Your task to perform on an android device: move a message to another label in the gmail app Image 0: 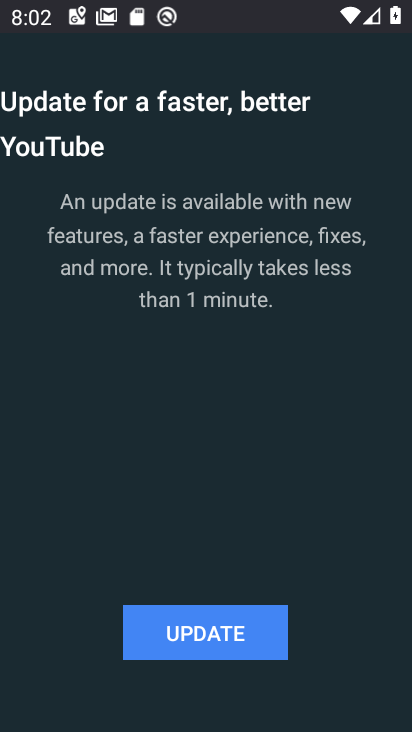
Step 0: press home button
Your task to perform on an android device: move a message to another label in the gmail app Image 1: 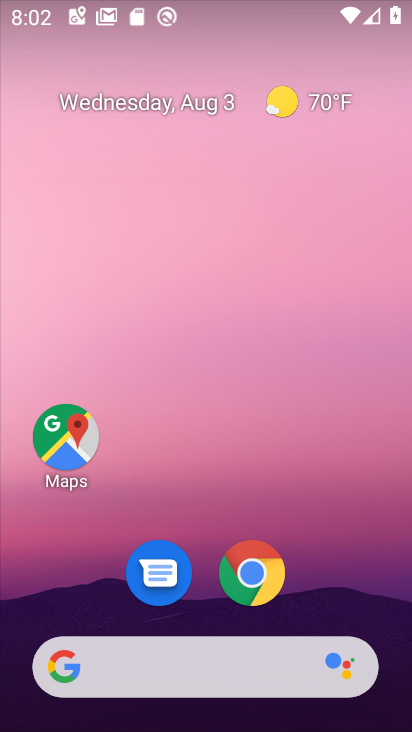
Step 1: drag from (325, 595) to (362, 47)
Your task to perform on an android device: move a message to another label in the gmail app Image 2: 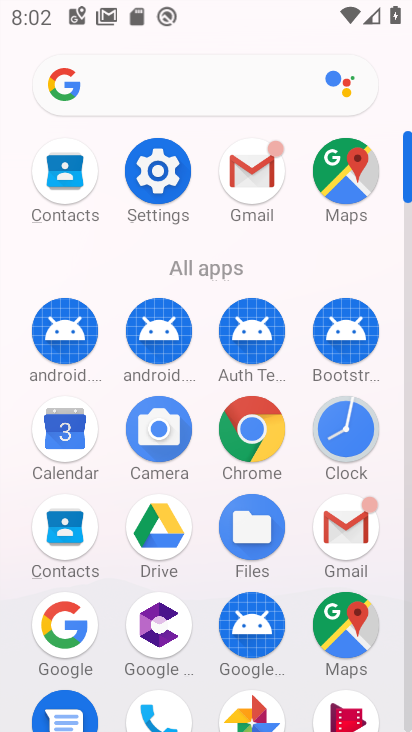
Step 2: click (249, 178)
Your task to perform on an android device: move a message to another label in the gmail app Image 3: 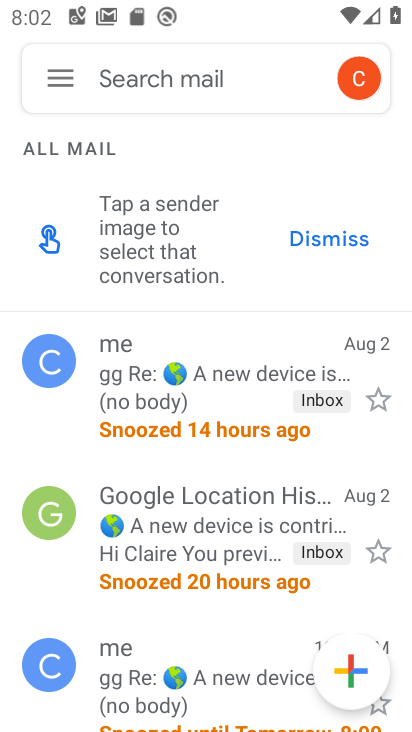
Step 3: drag from (186, 568) to (160, 216)
Your task to perform on an android device: move a message to another label in the gmail app Image 4: 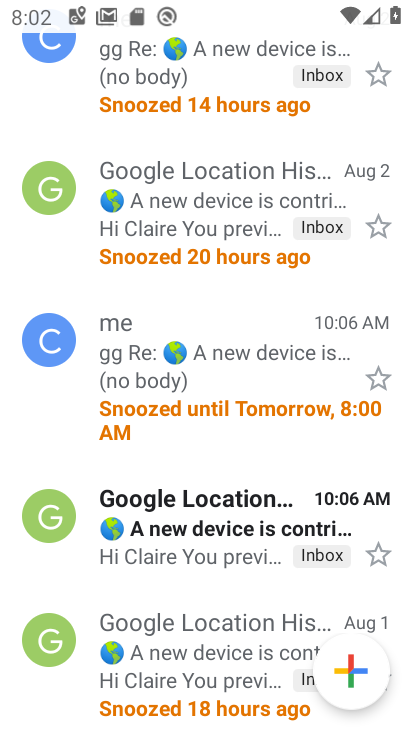
Step 4: click (239, 359)
Your task to perform on an android device: move a message to another label in the gmail app Image 5: 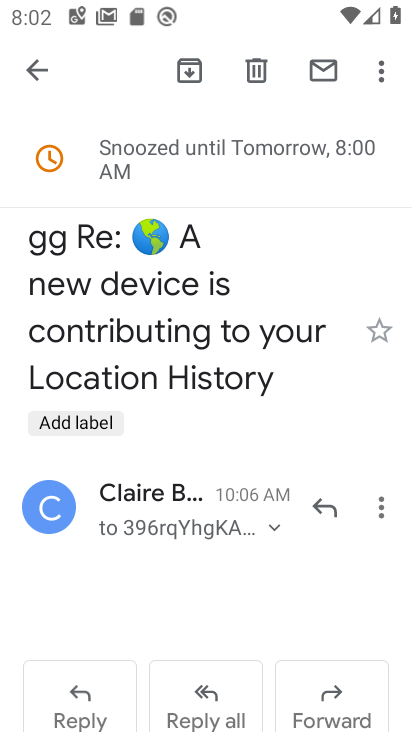
Step 5: click (381, 67)
Your task to perform on an android device: move a message to another label in the gmail app Image 6: 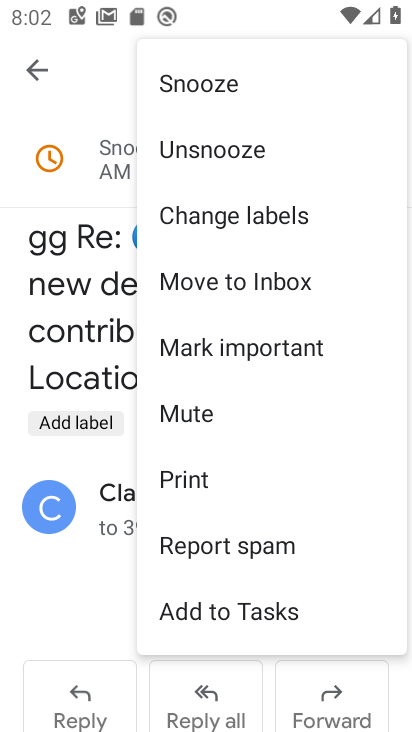
Step 6: click (221, 220)
Your task to perform on an android device: move a message to another label in the gmail app Image 7: 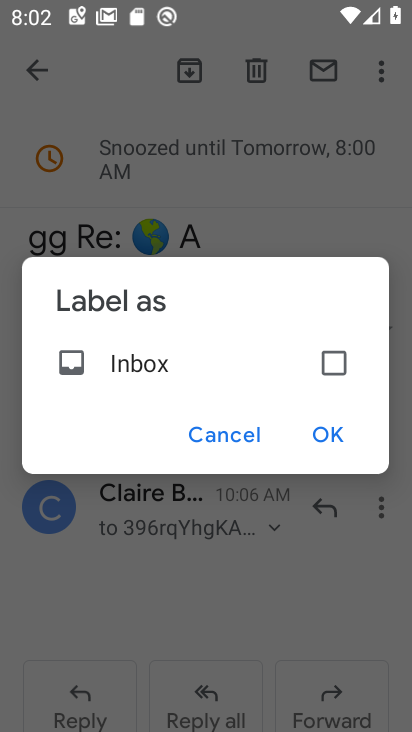
Step 7: click (337, 379)
Your task to perform on an android device: move a message to another label in the gmail app Image 8: 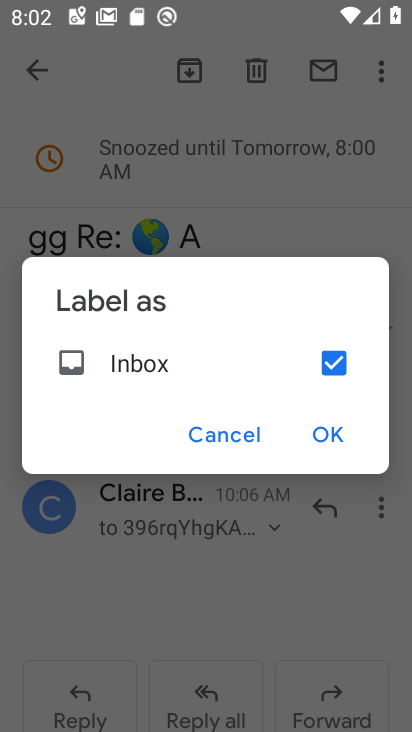
Step 8: click (339, 440)
Your task to perform on an android device: move a message to another label in the gmail app Image 9: 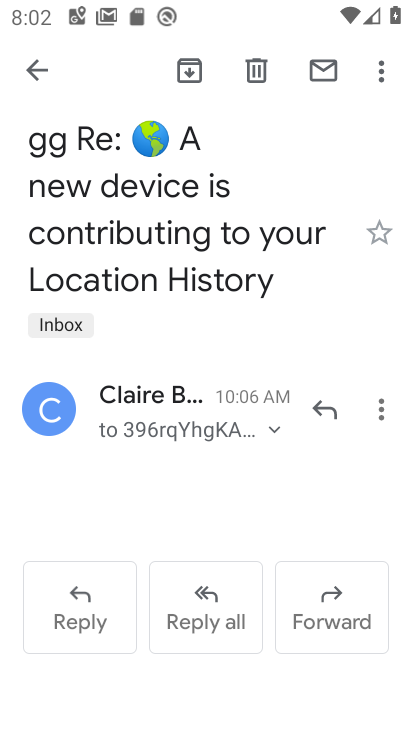
Step 9: task complete